Your task to perform on an android device: open a bookmark in the chrome app Image 0: 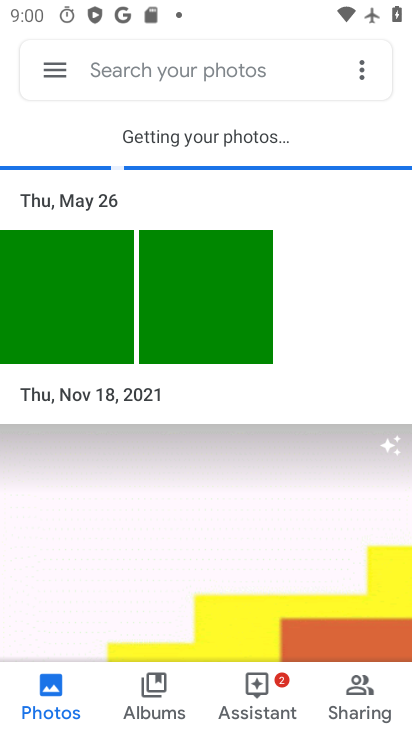
Step 0: press home button
Your task to perform on an android device: open a bookmark in the chrome app Image 1: 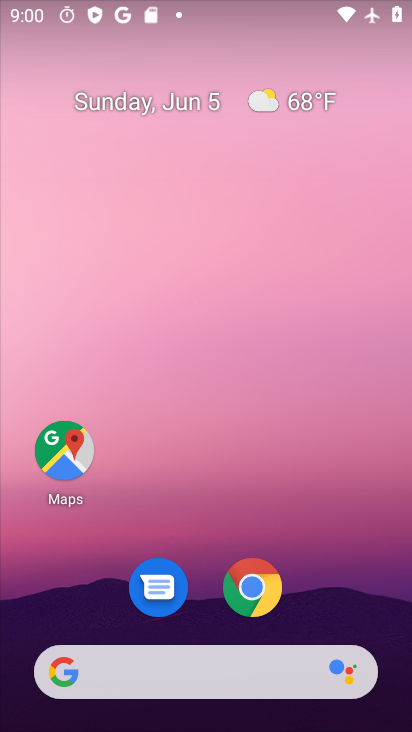
Step 1: click (258, 592)
Your task to perform on an android device: open a bookmark in the chrome app Image 2: 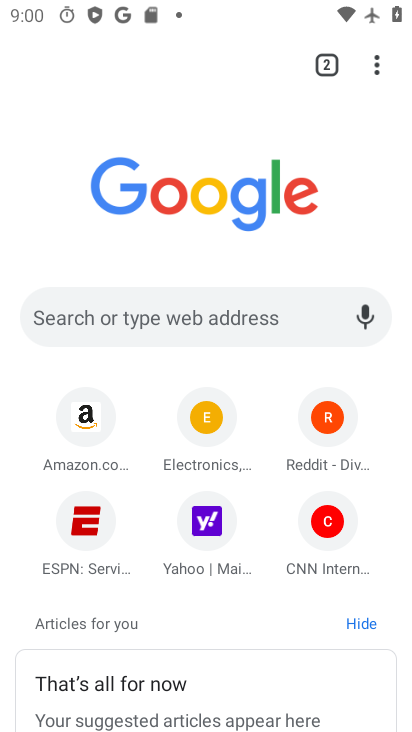
Step 2: click (374, 65)
Your task to perform on an android device: open a bookmark in the chrome app Image 3: 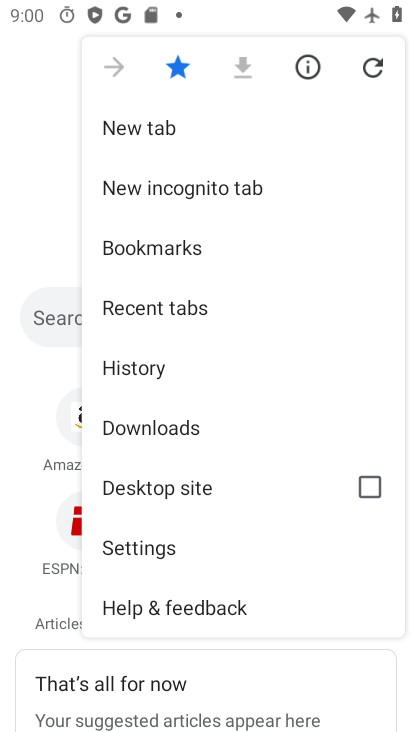
Step 3: click (164, 247)
Your task to perform on an android device: open a bookmark in the chrome app Image 4: 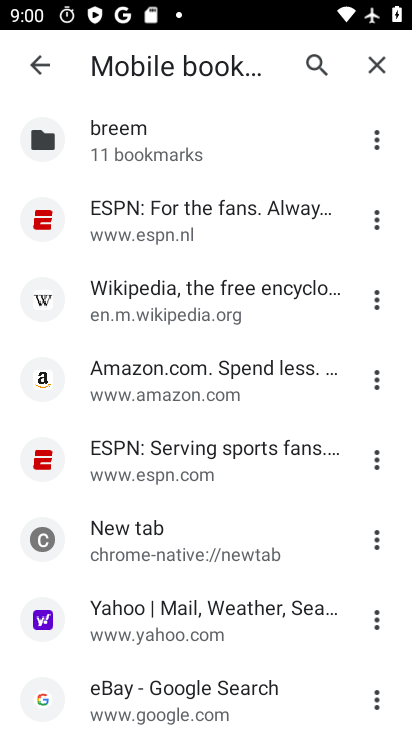
Step 4: click (209, 210)
Your task to perform on an android device: open a bookmark in the chrome app Image 5: 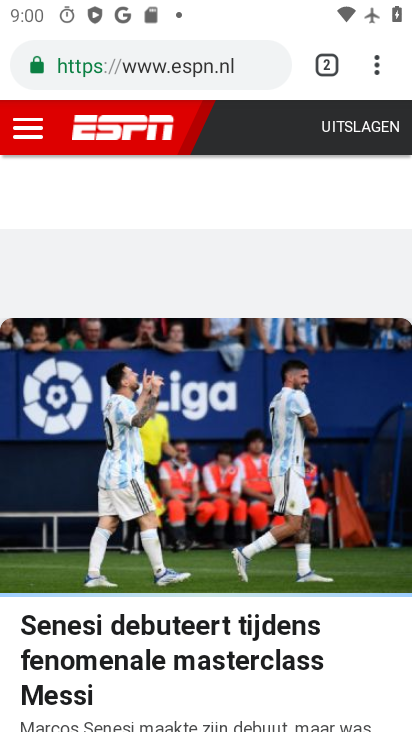
Step 5: task complete